Your task to perform on an android device: empty trash in google photos Image 0: 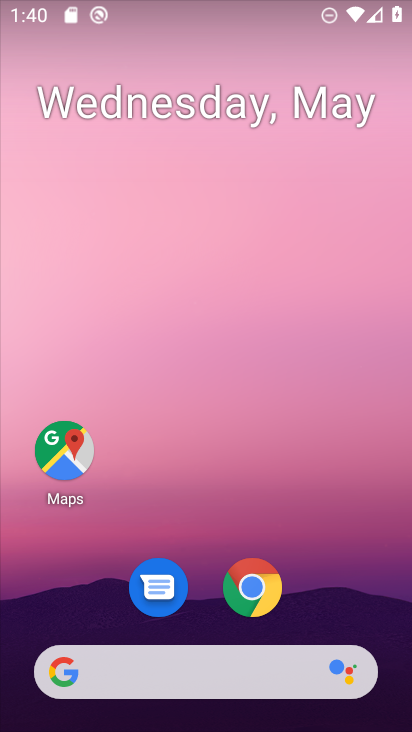
Step 0: drag from (343, 605) to (315, 125)
Your task to perform on an android device: empty trash in google photos Image 1: 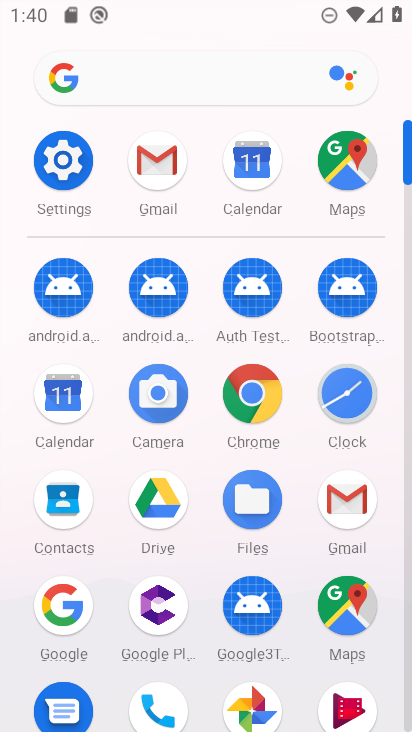
Step 1: click (252, 709)
Your task to perform on an android device: empty trash in google photos Image 2: 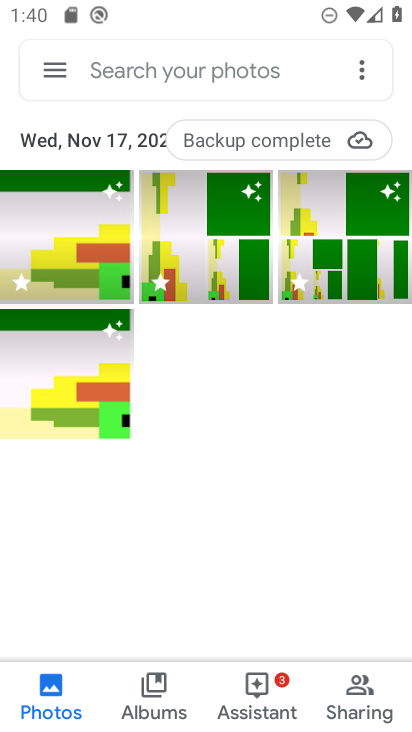
Step 2: click (58, 69)
Your task to perform on an android device: empty trash in google photos Image 3: 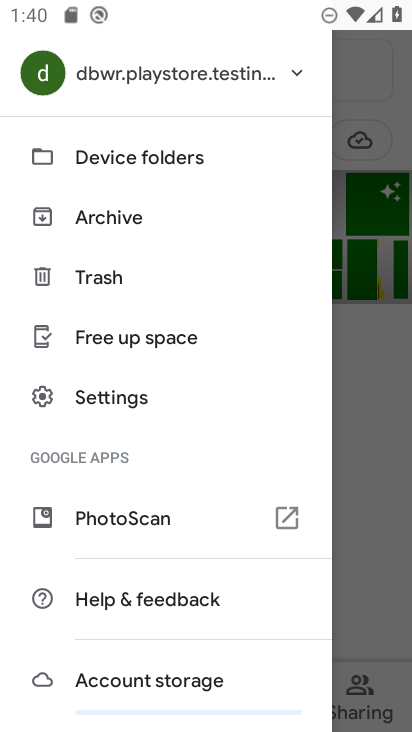
Step 3: click (100, 289)
Your task to perform on an android device: empty trash in google photos Image 4: 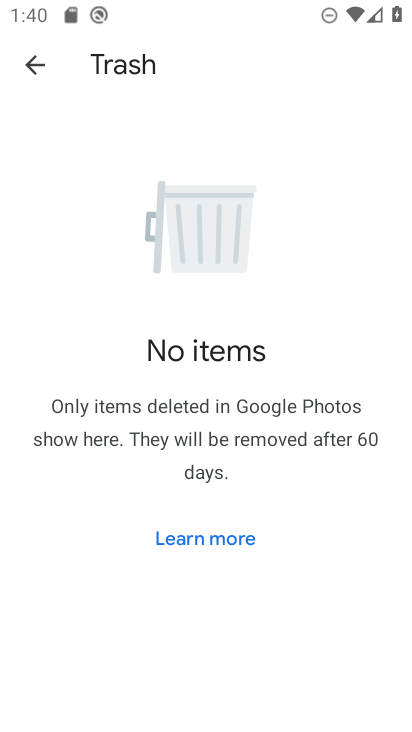
Step 4: task complete